Your task to perform on an android device: allow notifications from all sites in the chrome app Image 0: 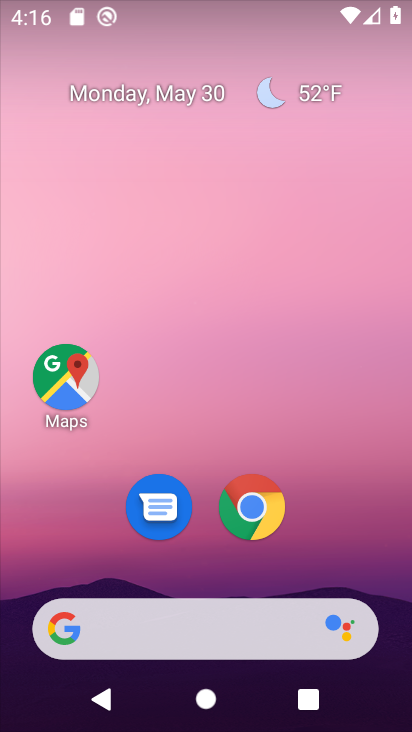
Step 0: press home button
Your task to perform on an android device: allow notifications from all sites in the chrome app Image 1: 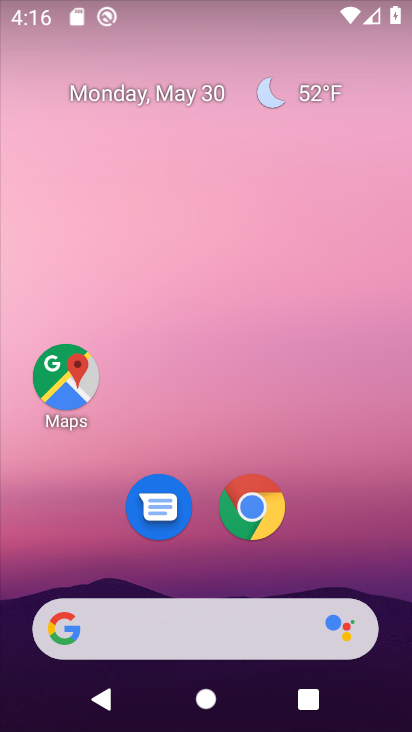
Step 1: click (269, 505)
Your task to perform on an android device: allow notifications from all sites in the chrome app Image 2: 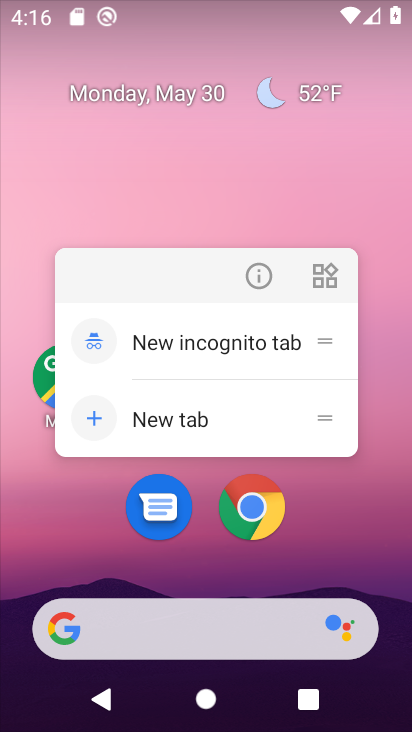
Step 2: click (264, 524)
Your task to perform on an android device: allow notifications from all sites in the chrome app Image 3: 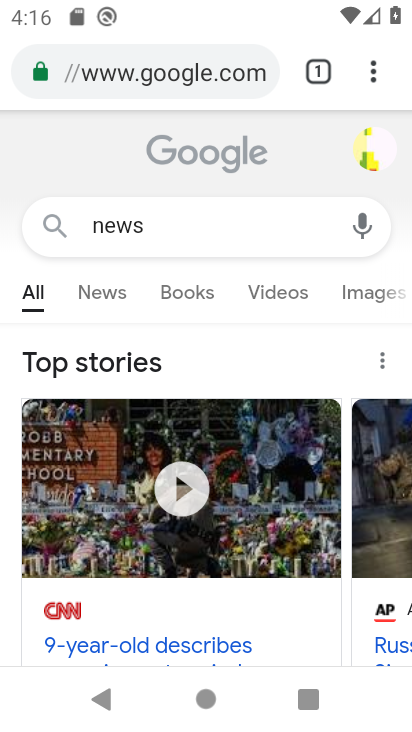
Step 3: drag from (352, 67) to (113, 516)
Your task to perform on an android device: allow notifications from all sites in the chrome app Image 4: 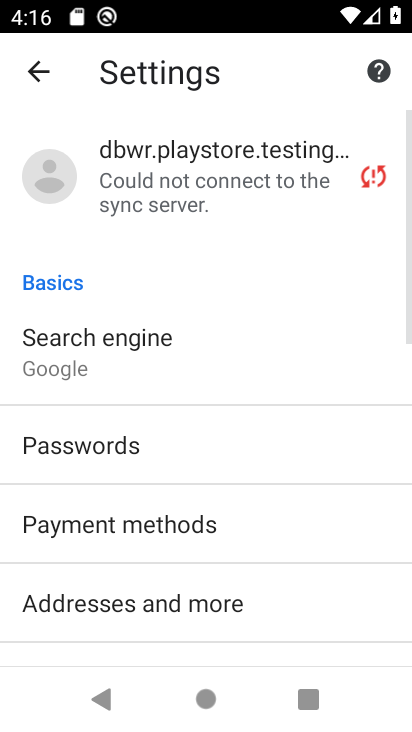
Step 4: drag from (206, 597) to (307, 17)
Your task to perform on an android device: allow notifications from all sites in the chrome app Image 5: 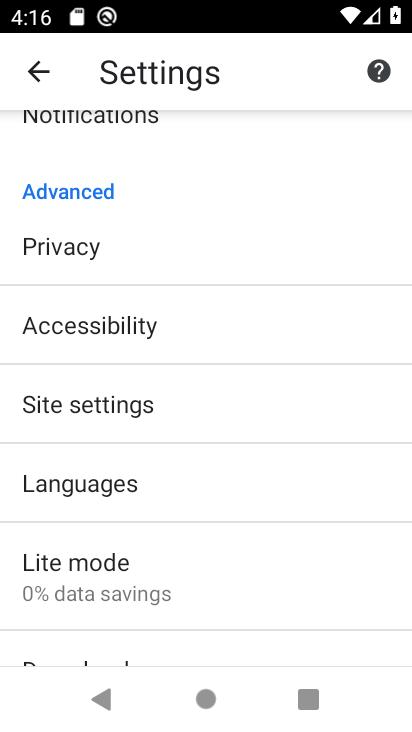
Step 5: click (151, 386)
Your task to perform on an android device: allow notifications from all sites in the chrome app Image 6: 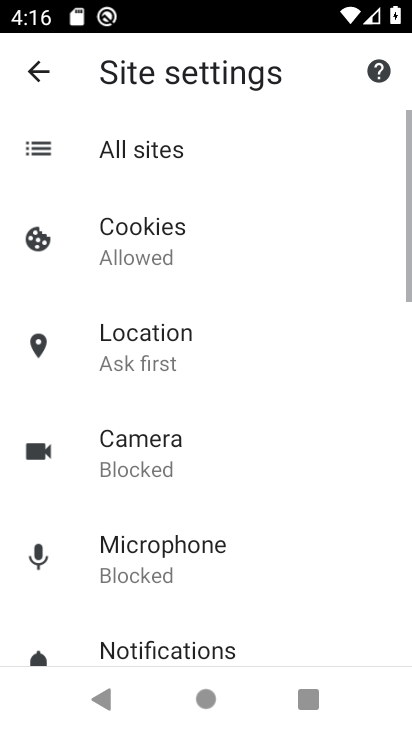
Step 6: click (119, 157)
Your task to perform on an android device: allow notifications from all sites in the chrome app Image 7: 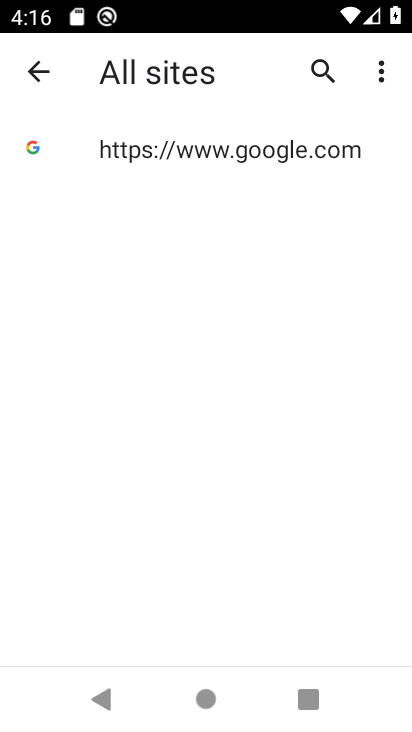
Step 7: click (147, 165)
Your task to perform on an android device: allow notifications from all sites in the chrome app Image 8: 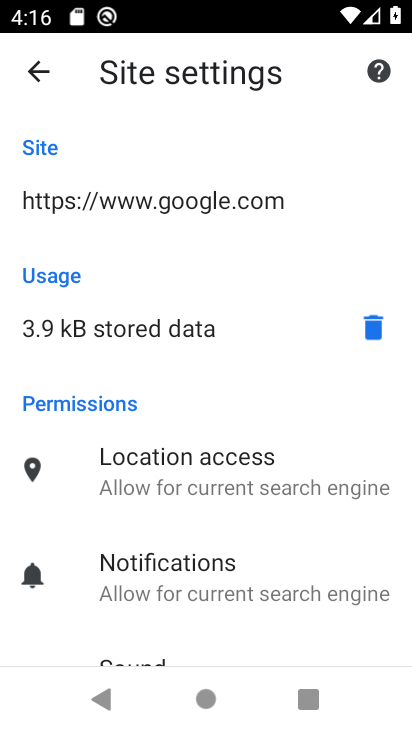
Step 8: click (151, 546)
Your task to perform on an android device: allow notifications from all sites in the chrome app Image 9: 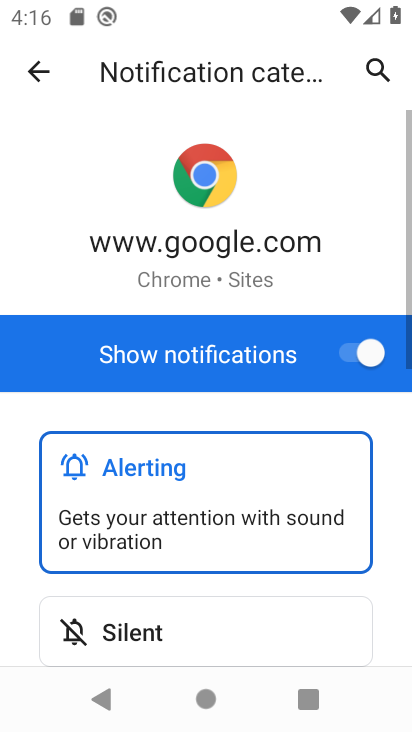
Step 9: drag from (151, 546) to (246, 28)
Your task to perform on an android device: allow notifications from all sites in the chrome app Image 10: 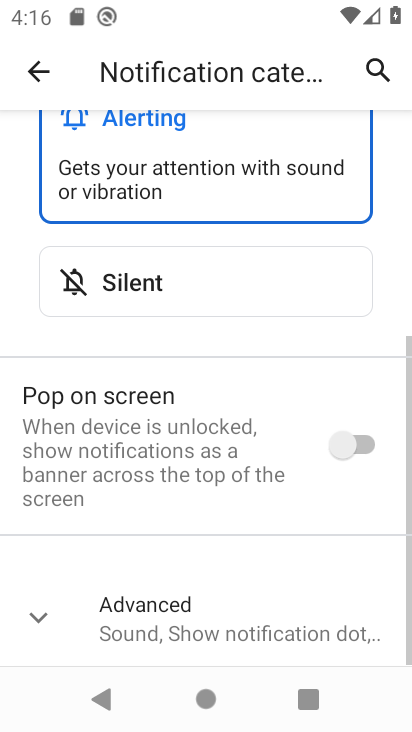
Step 10: click (253, 474)
Your task to perform on an android device: allow notifications from all sites in the chrome app Image 11: 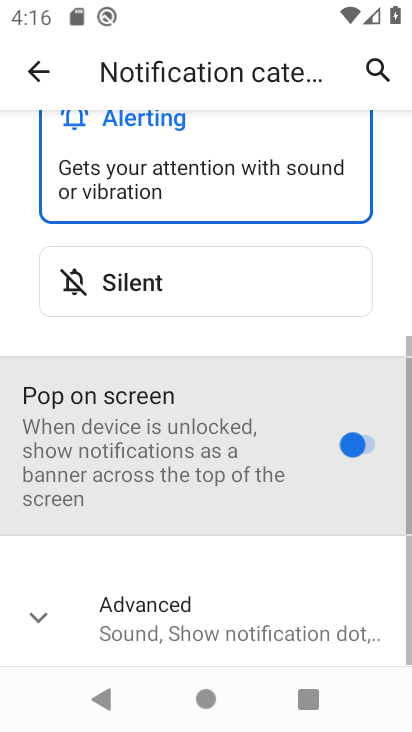
Step 11: click (244, 607)
Your task to perform on an android device: allow notifications from all sites in the chrome app Image 12: 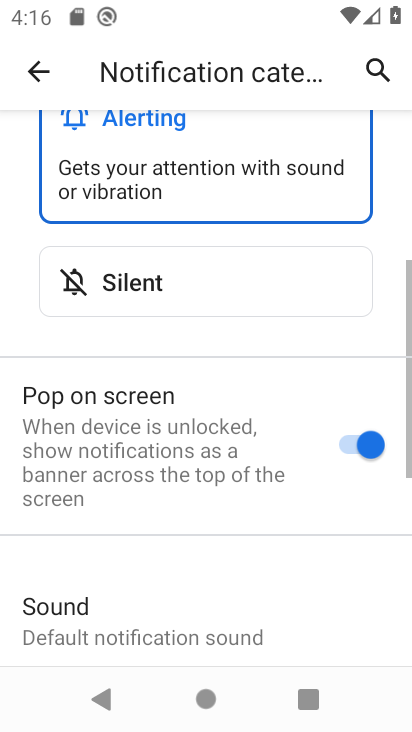
Step 12: drag from (246, 581) to (346, 2)
Your task to perform on an android device: allow notifications from all sites in the chrome app Image 13: 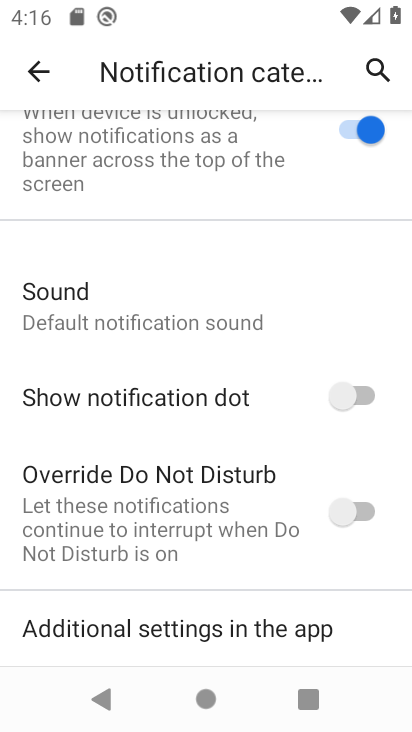
Step 13: click (239, 417)
Your task to perform on an android device: allow notifications from all sites in the chrome app Image 14: 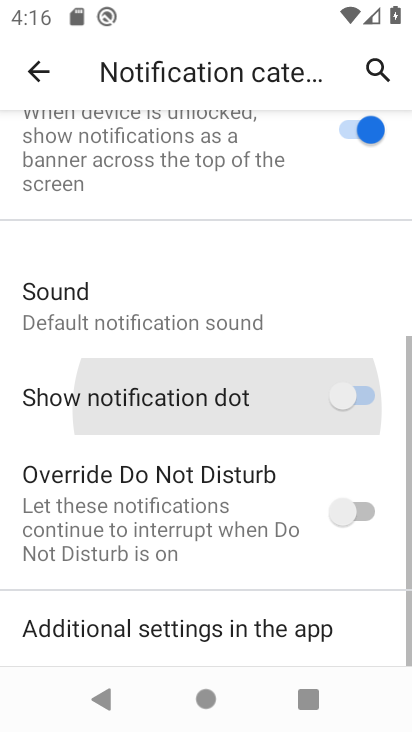
Step 14: click (260, 531)
Your task to perform on an android device: allow notifications from all sites in the chrome app Image 15: 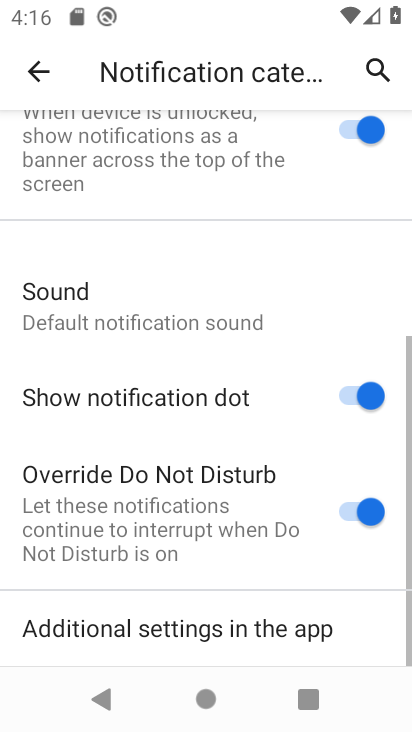
Step 15: task complete